Your task to perform on an android device: change the clock display to digital Image 0: 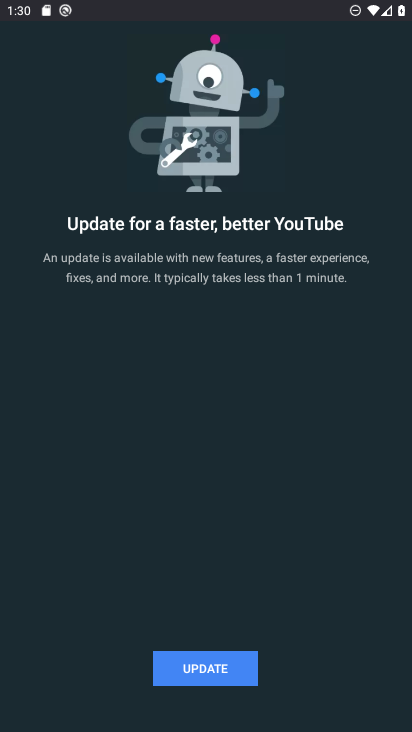
Step 0: press home button
Your task to perform on an android device: change the clock display to digital Image 1: 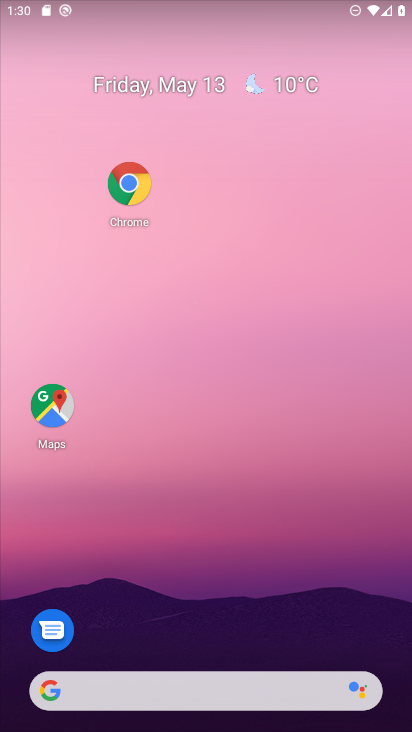
Step 1: drag from (223, 661) to (192, 223)
Your task to perform on an android device: change the clock display to digital Image 2: 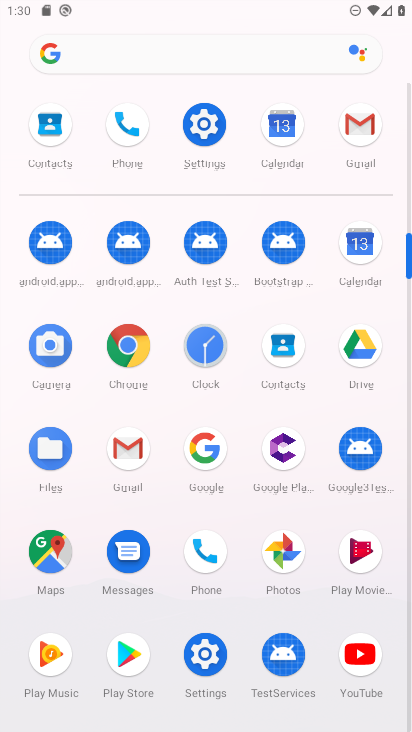
Step 2: click (203, 362)
Your task to perform on an android device: change the clock display to digital Image 3: 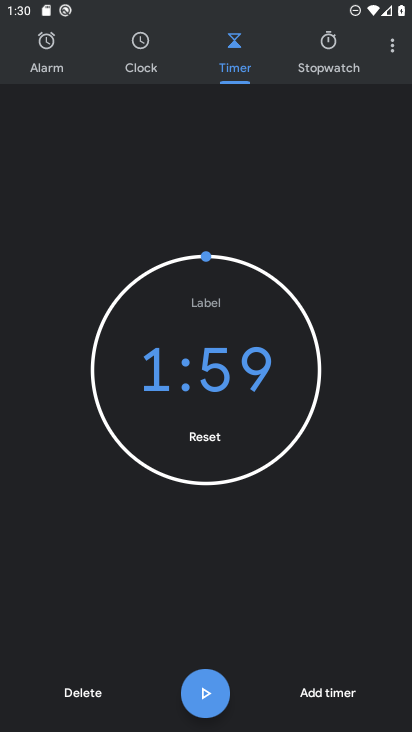
Step 3: click (393, 50)
Your task to perform on an android device: change the clock display to digital Image 4: 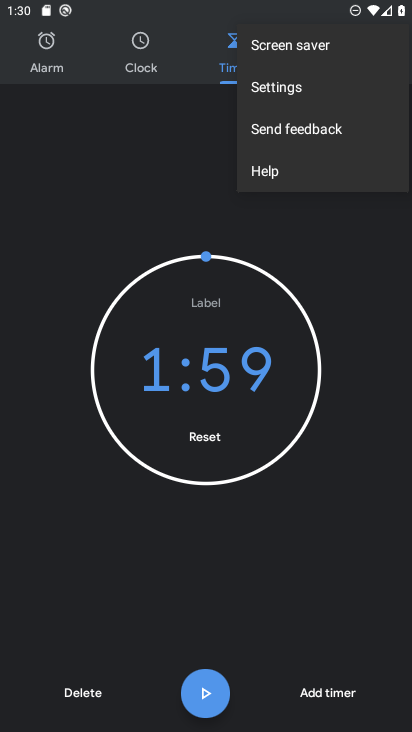
Step 4: click (271, 87)
Your task to perform on an android device: change the clock display to digital Image 5: 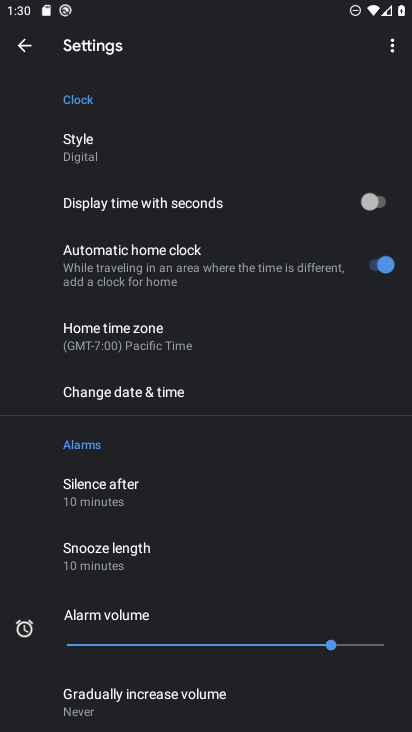
Step 5: task complete